Your task to perform on an android device: Open Maps and search for coffee Image 0: 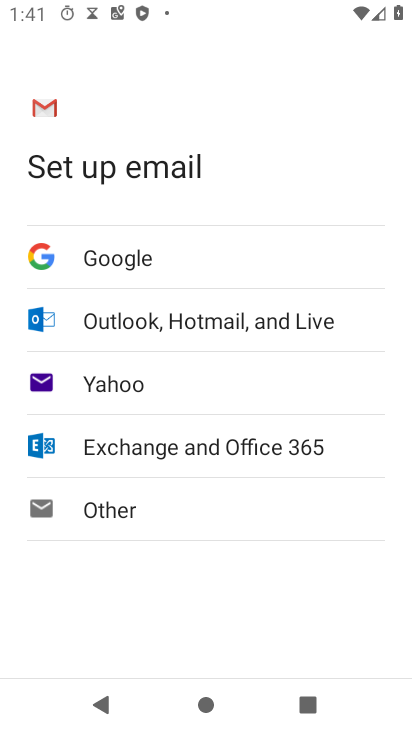
Step 0: press home button
Your task to perform on an android device: Open Maps and search for coffee Image 1: 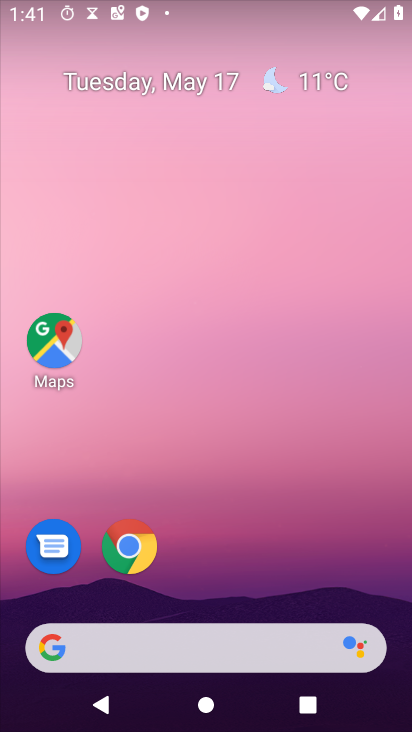
Step 1: click (54, 335)
Your task to perform on an android device: Open Maps and search for coffee Image 2: 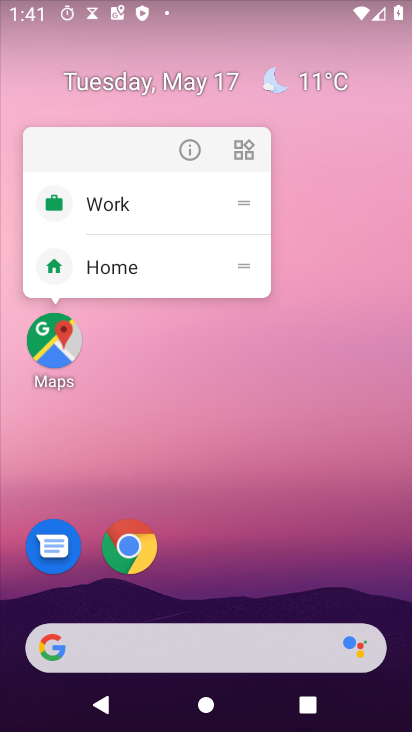
Step 2: click (56, 345)
Your task to perform on an android device: Open Maps and search for coffee Image 3: 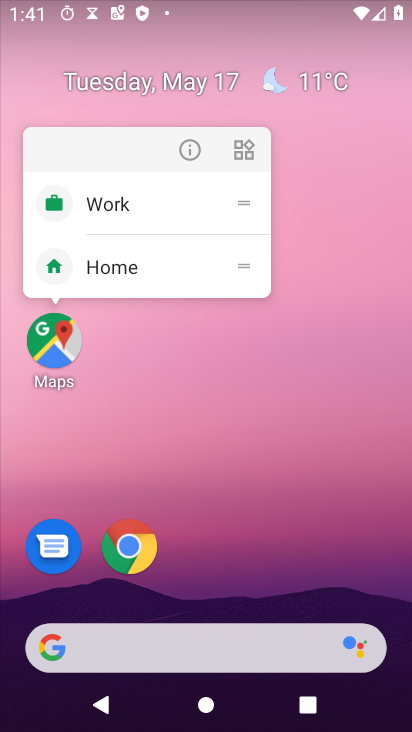
Step 3: click (56, 345)
Your task to perform on an android device: Open Maps and search for coffee Image 4: 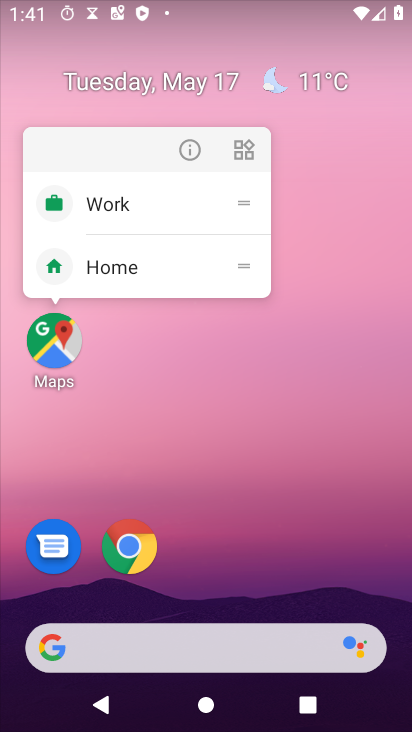
Step 4: click (56, 344)
Your task to perform on an android device: Open Maps and search for coffee Image 5: 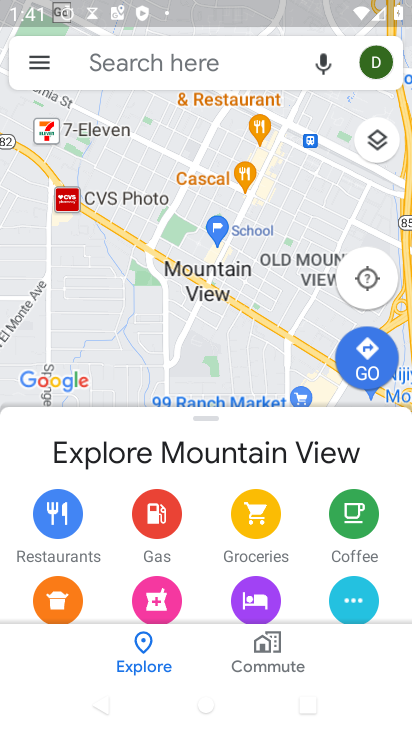
Step 5: click (179, 59)
Your task to perform on an android device: Open Maps and search for coffee Image 6: 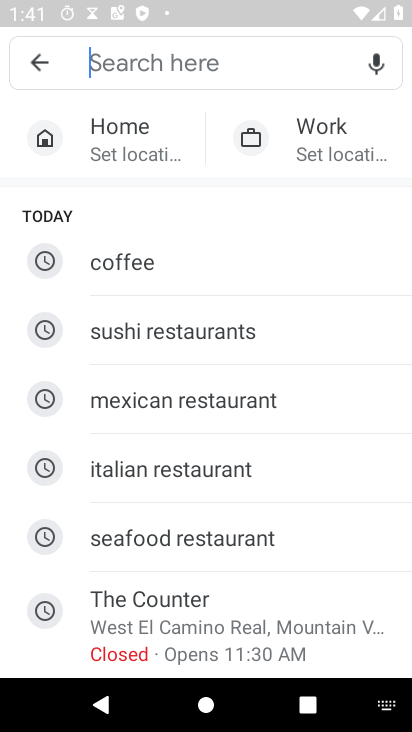
Step 6: click (136, 263)
Your task to perform on an android device: Open Maps and search for coffee Image 7: 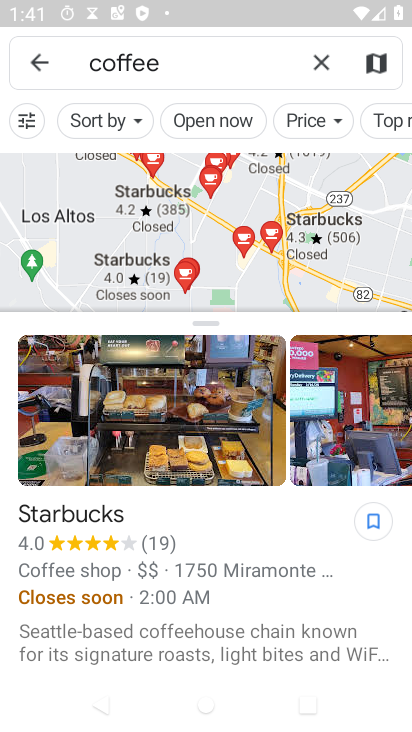
Step 7: task complete